Your task to perform on an android device: What's the news in Suriname? Image 0: 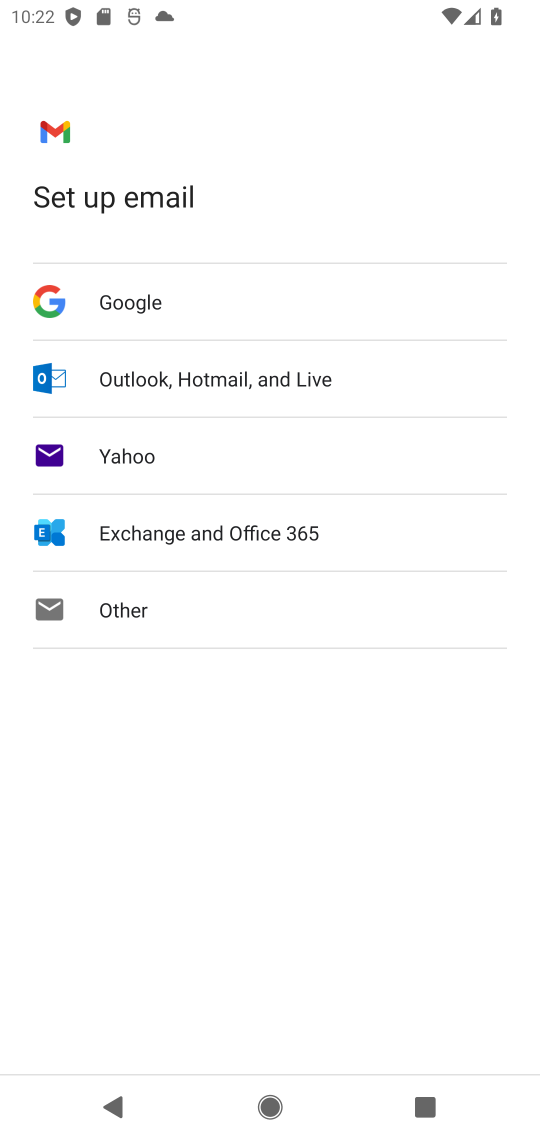
Step 0: press home button
Your task to perform on an android device: What's the news in Suriname? Image 1: 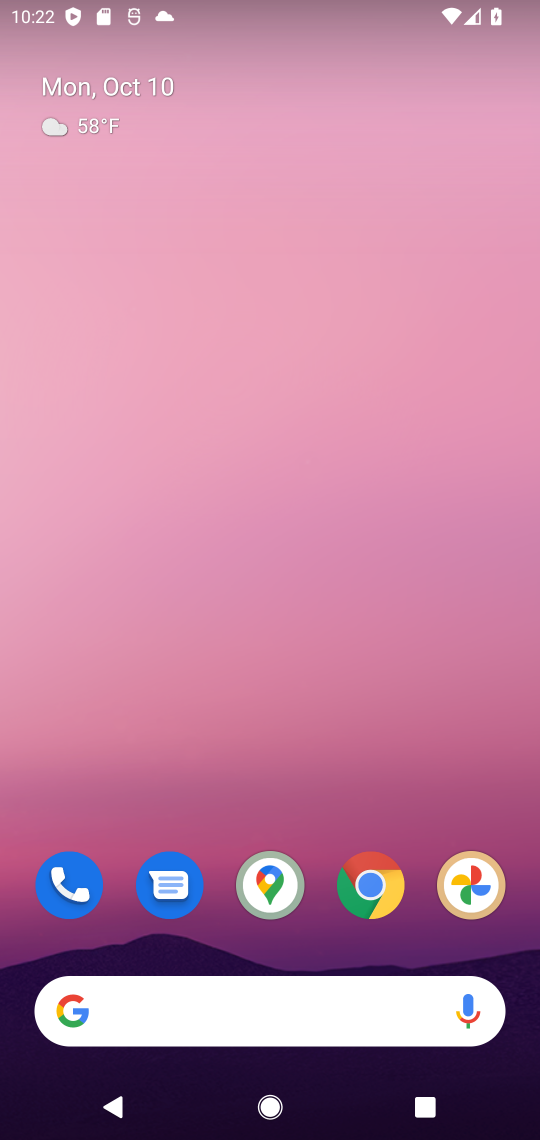
Step 1: click (363, 900)
Your task to perform on an android device: What's the news in Suriname? Image 2: 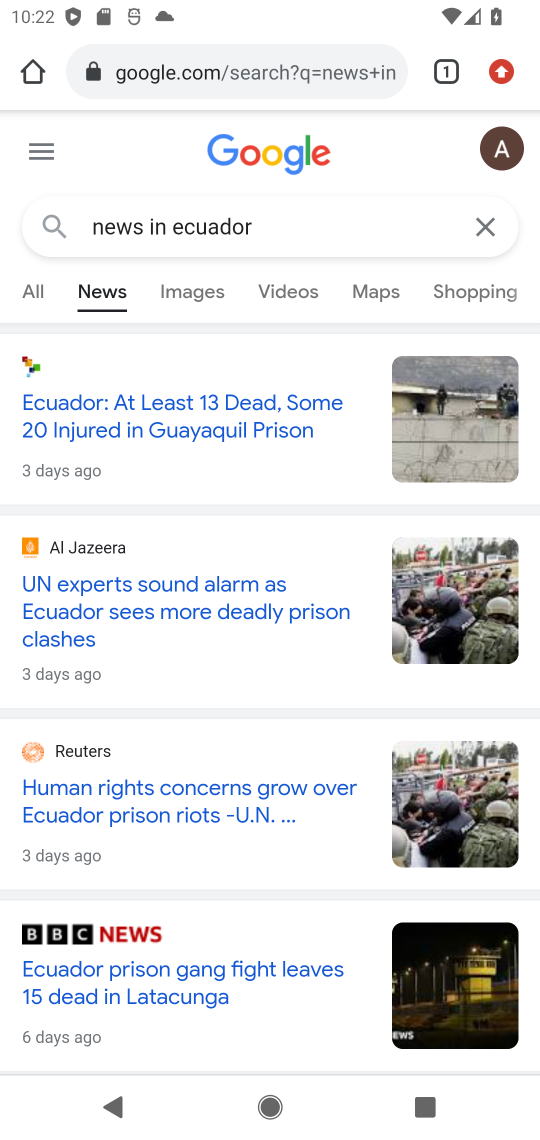
Step 2: click (197, 74)
Your task to perform on an android device: What's the news in Suriname? Image 3: 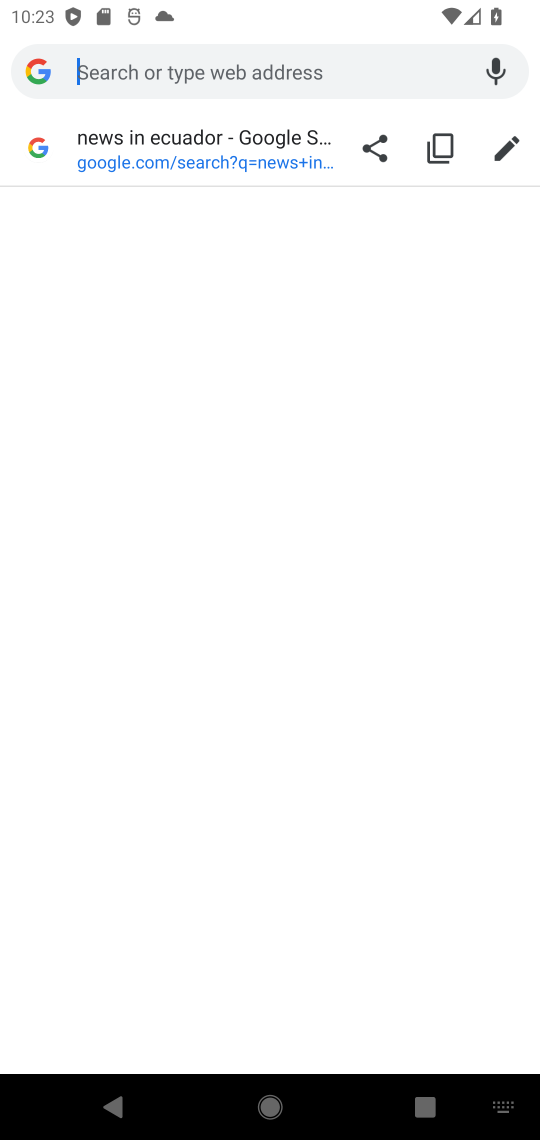
Step 3: type "suriname"
Your task to perform on an android device: What's the news in Suriname? Image 4: 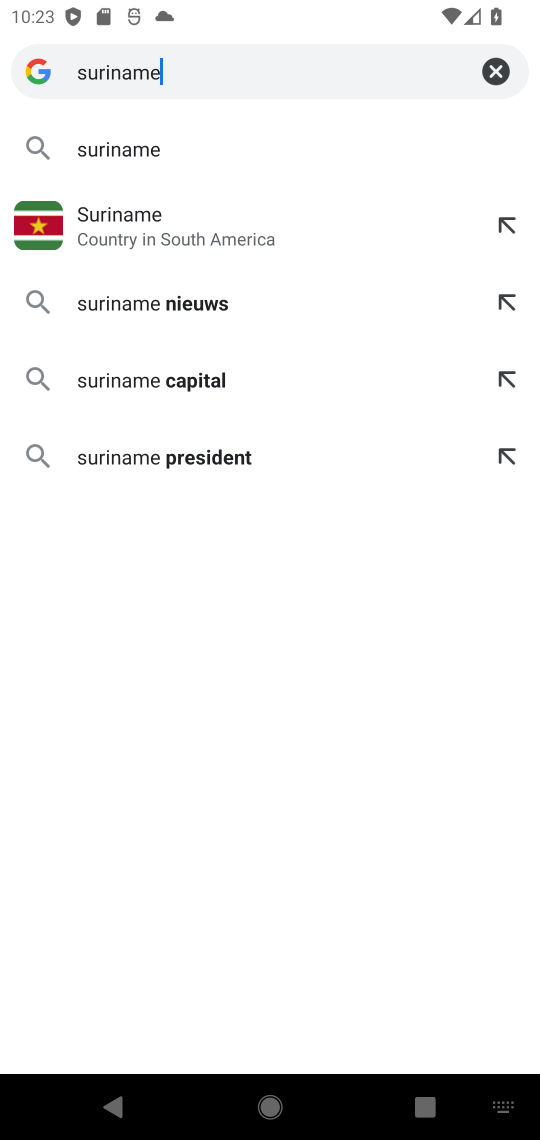
Step 4: click (154, 144)
Your task to perform on an android device: What's the news in Suriname? Image 5: 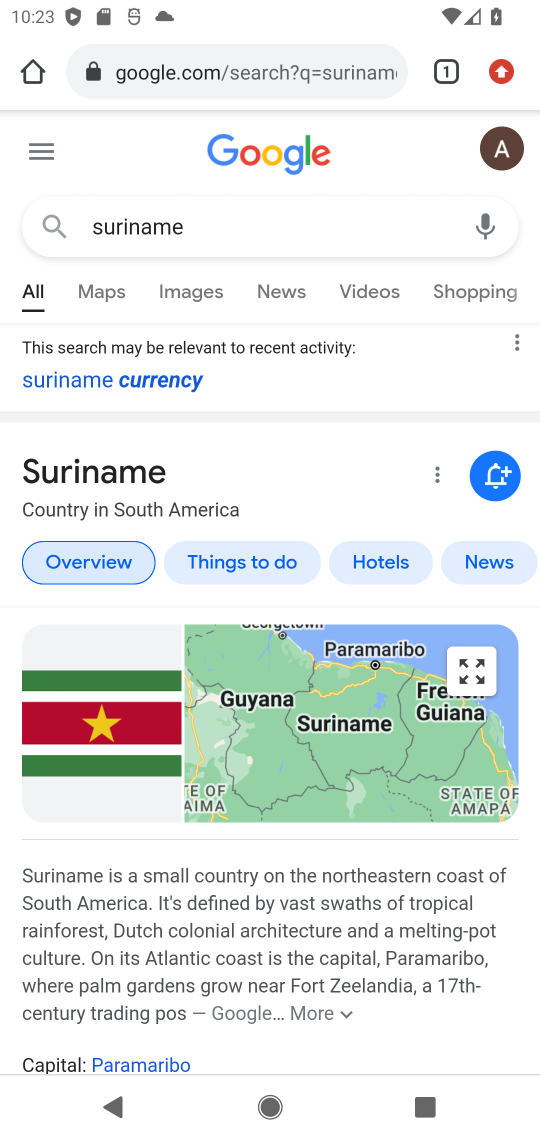
Step 5: click (275, 288)
Your task to perform on an android device: What's the news in Suriname? Image 6: 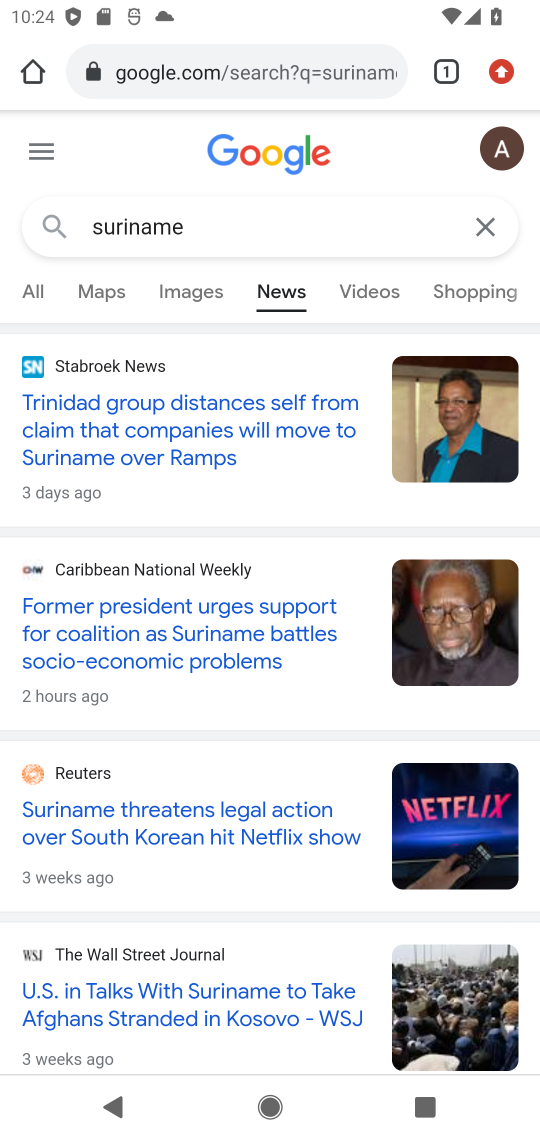
Step 6: task complete